Your task to perform on an android device: Open Google Chrome and open the bookmarks view Image 0: 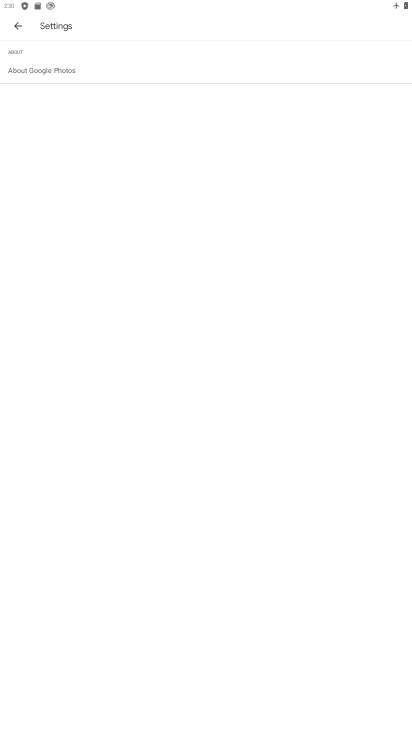
Step 0: press home button
Your task to perform on an android device: Open Google Chrome and open the bookmarks view Image 1: 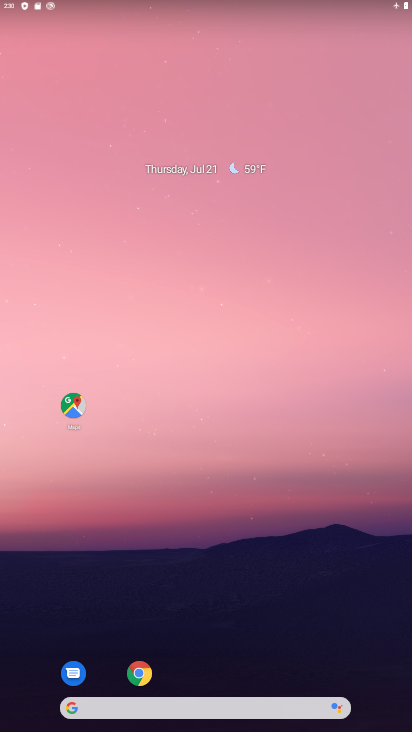
Step 1: click (137, 673)
Your task to perform on an android device: Open Google Chrome and open the bookmarks view Image 2: 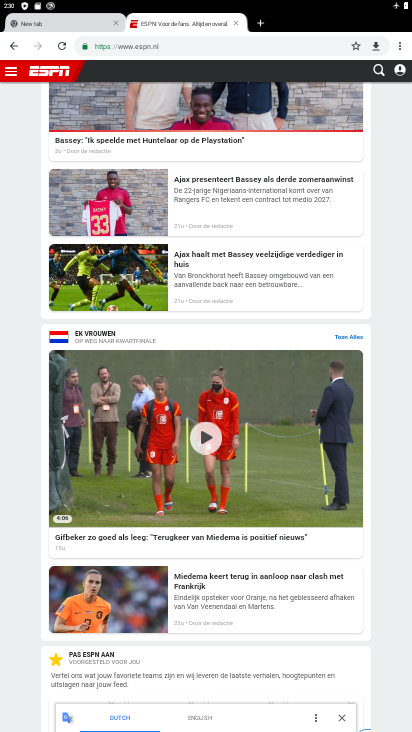
Step 2: click (400, 47)
Your task to perform on an android device: Open Google Chrome and open the bookmarks view Image 3: 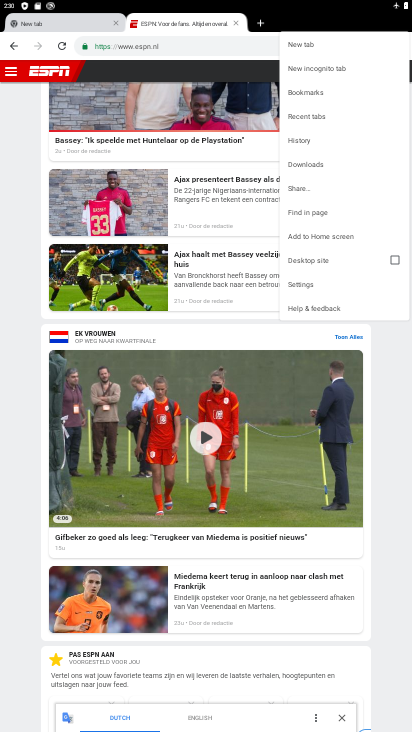
Step 3: click (295, 87)
Your task to perform on an android device: Open Google Chrome and open the bookmarks view Image 4: 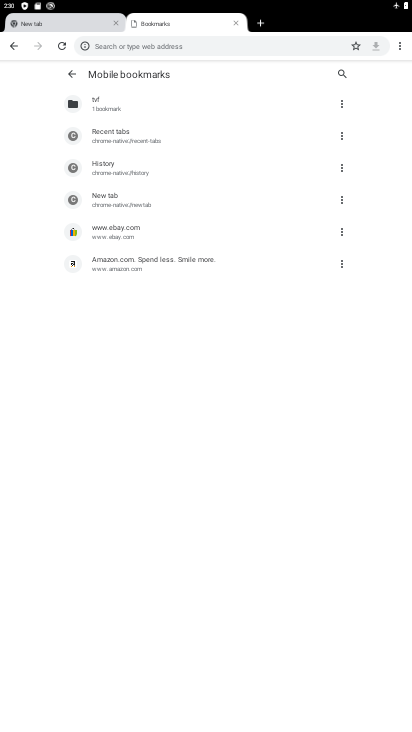
Step 4: task complete